Your task to perform on an android device: toggle sleep mode Image 0: 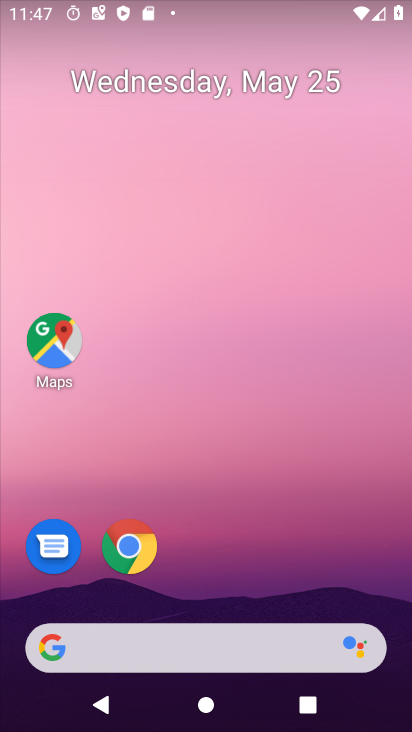
Step 0: drag from (247, 579) to (344, 21)
Your task to perform on an android device: toggle sleep mode Image 1: 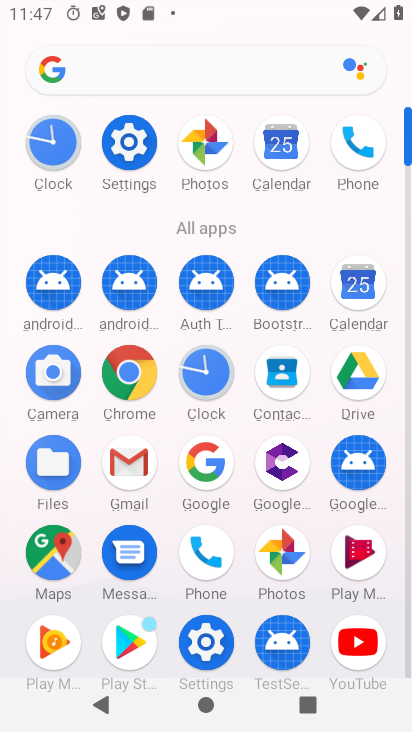
Step 1: click (123, 143)
Your task to perform on an android device: toggle sleep mode Image 2: 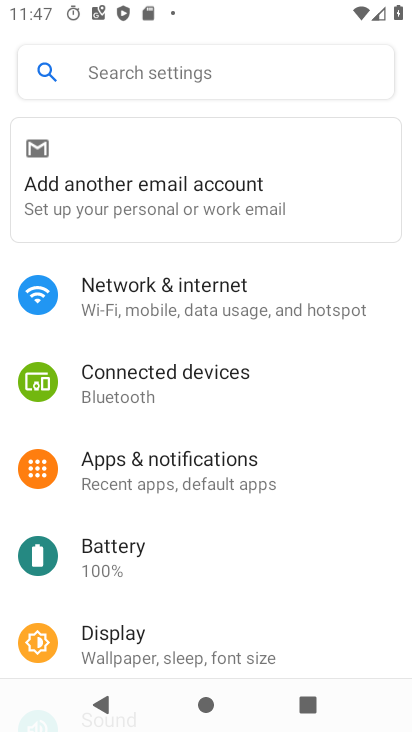
Step 2: click (121, 646)
Your task to perform on an android device: toggle sleep mode Image 3: 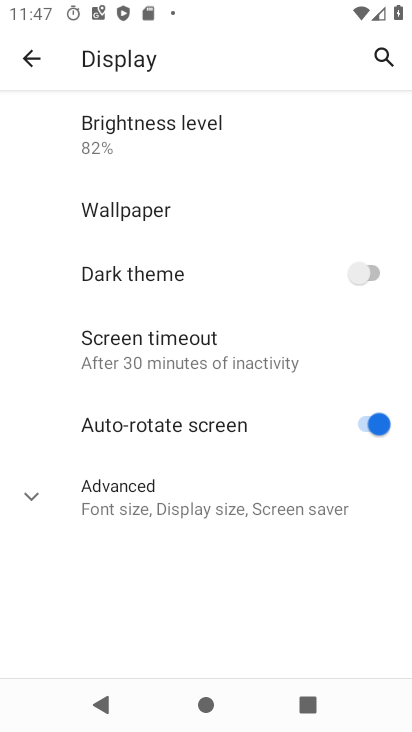
Step 3: click (242, 508)
Your task to perform on an android device: toggle sleep mode Image 4: 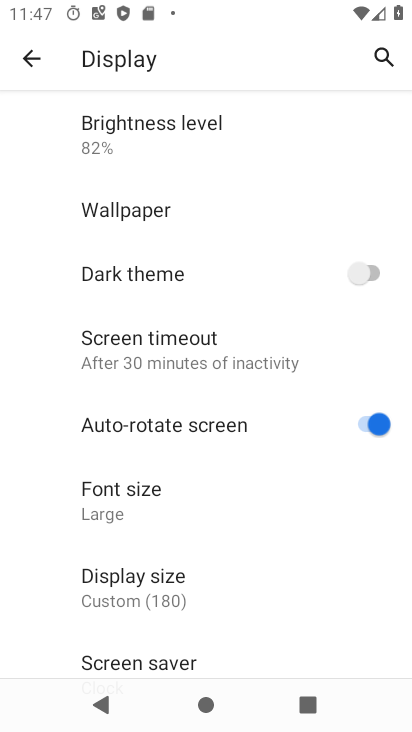
Step 4: task complete